Your task to perform on an android device: change alarm snooze length Image 0: 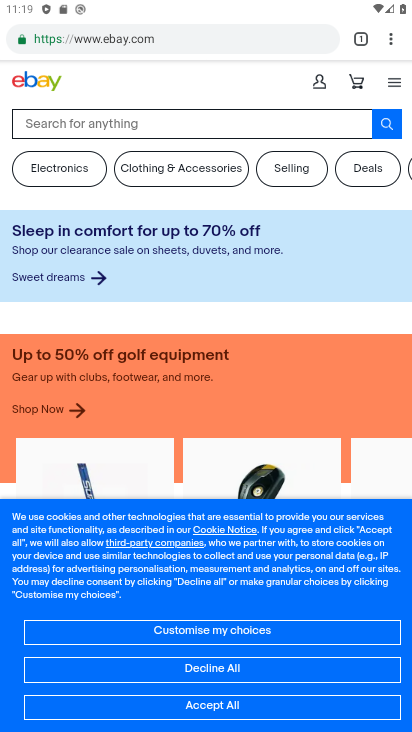
Step 0: press home button
Your task to perform on an android device: change alarm snooze length Image 1: 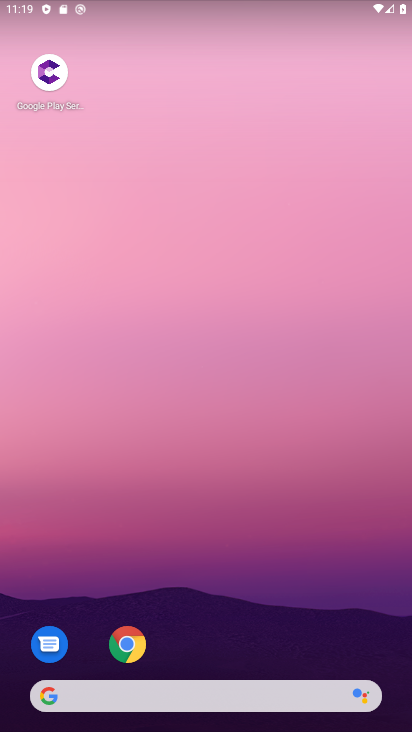
Step 1: drag from (250, 643) to (230, 179)
Your task to perform on an android device: change alarm snooze length Image 2: 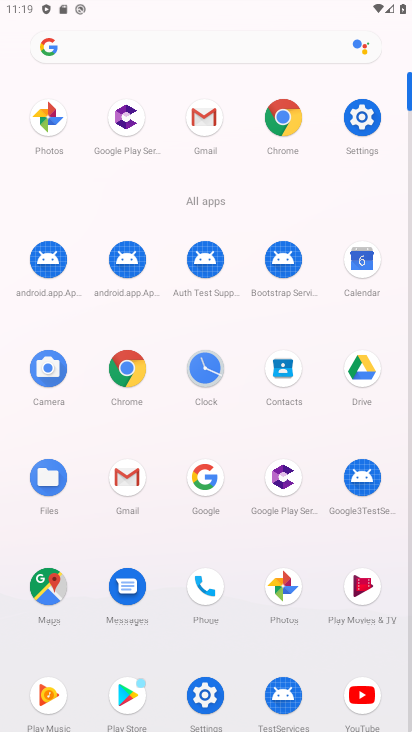
Step 2: click (213, 384)
Your task to perform on an android device: change alarm snooze length Image 3: 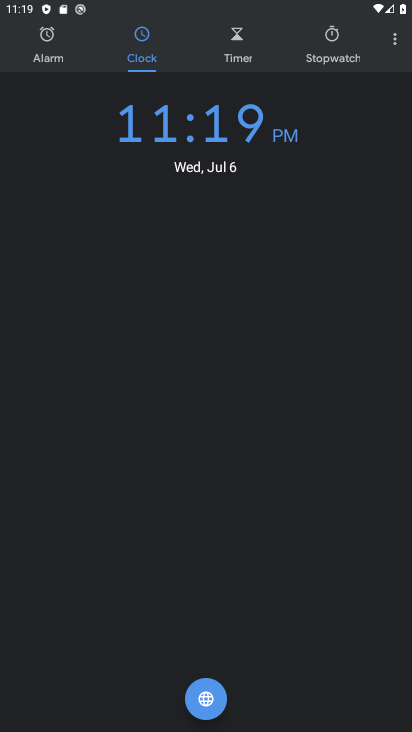
Step 3: click (393, 51)
Your task to perform on an android device: change alarm snooze length Image 4: 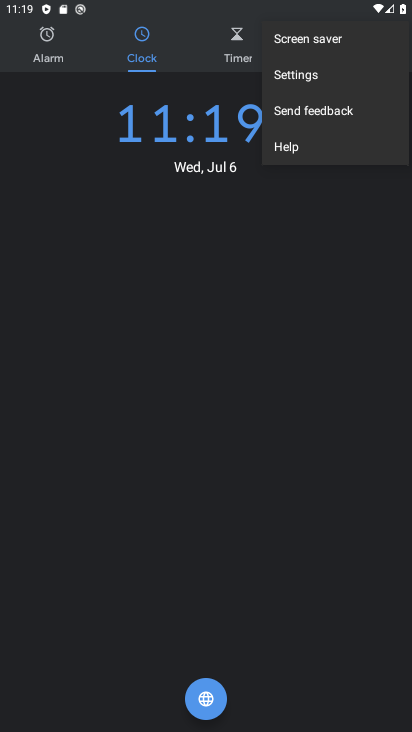
Step 4: click (317, 74)
Your task to perform on an android device: change alarm snooze length Image 5: 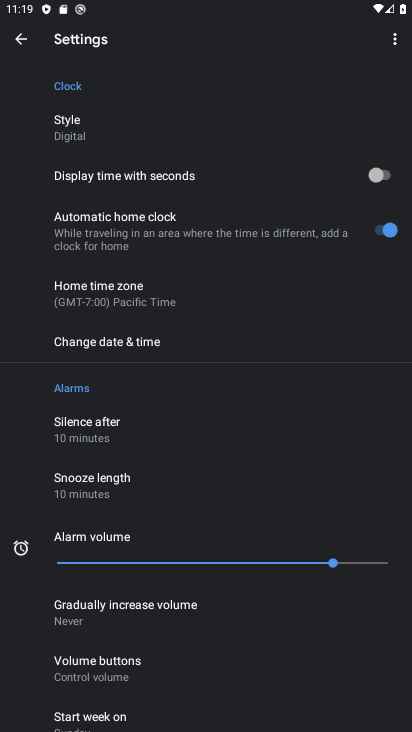
Step 5: click (181, 480)
Your task to perform on an android device: change alarm snooze length Image 6: 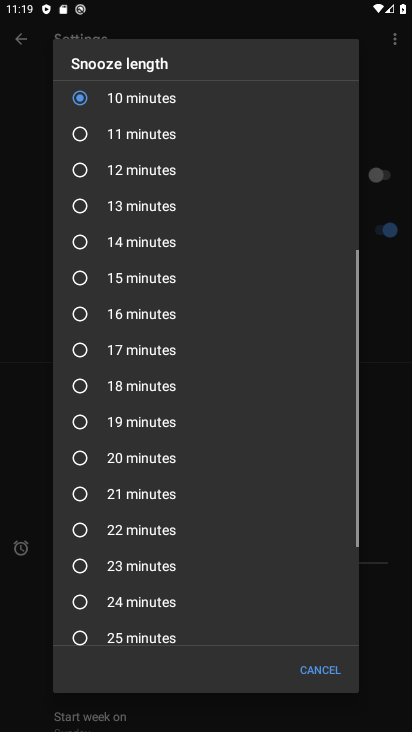
Step 6: click (121, 136)
Your task to perform on an android device: change alarm snooze length Image 7: 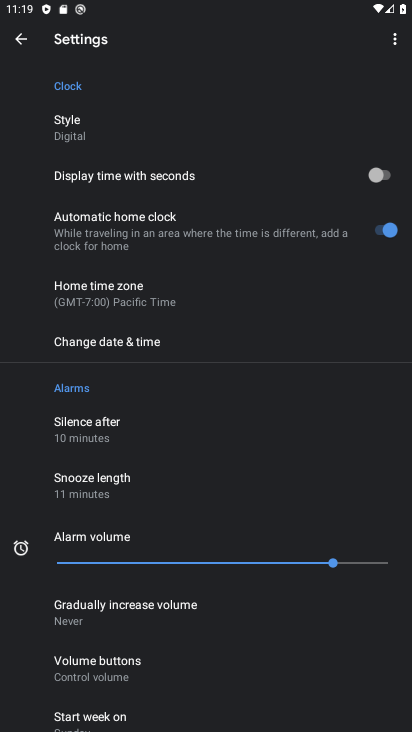
Step 7: task complete